Your task to perform on an android device: delete a single message in the gmail app Image 0: 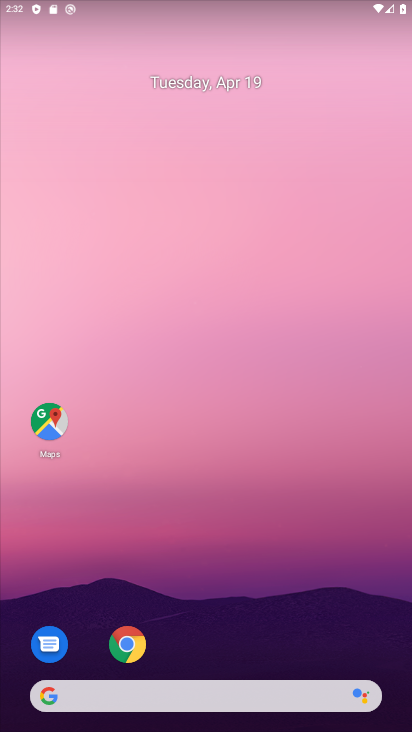
Step 0: drag from (266, 645) to (258, 103)
Your task to perform on an android device: delete a single message in the gmail app Image 1: 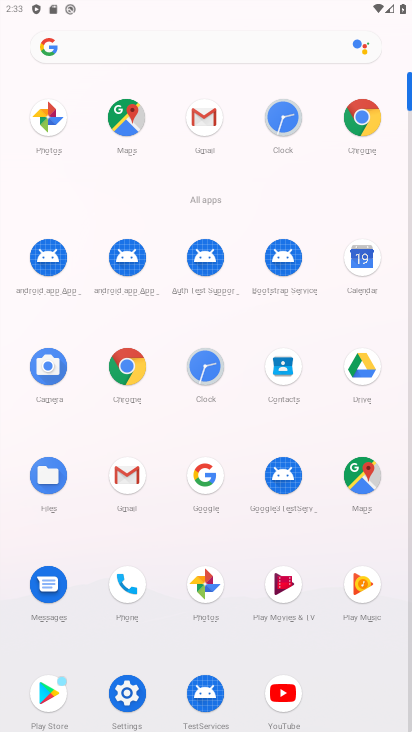
Step 1: click (121, 474)
Your task to perform on an android device: delete a single message in the gmail app Image 2: 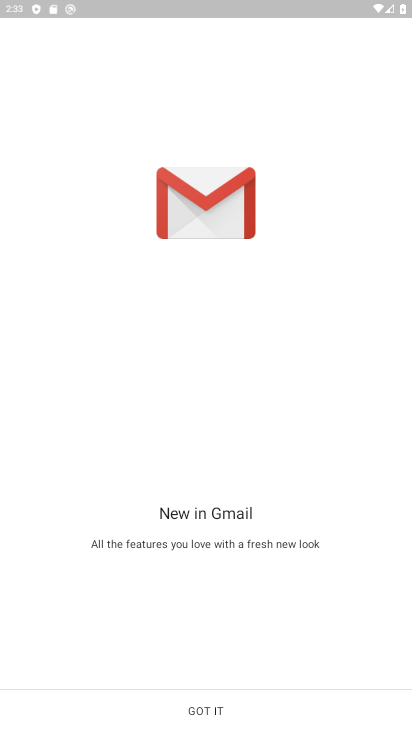
Step 2: click (285, 727)
Your task to perform on an android device: delete a single message in the gmail app Image 3: 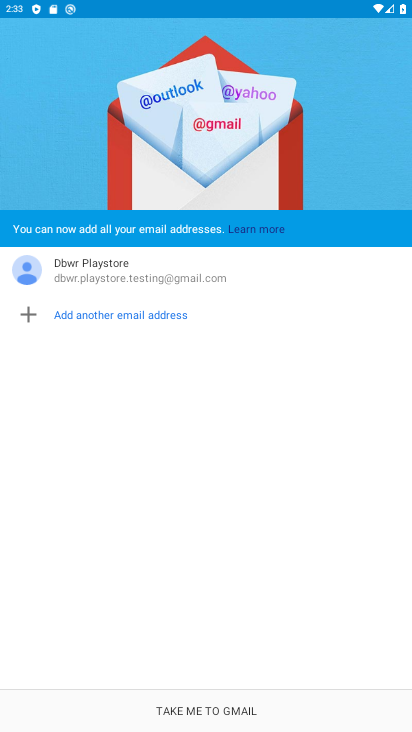
Step 3: click (284, 722)
Your task to perform on an android device: delete a single message in the gmail app Image 4: 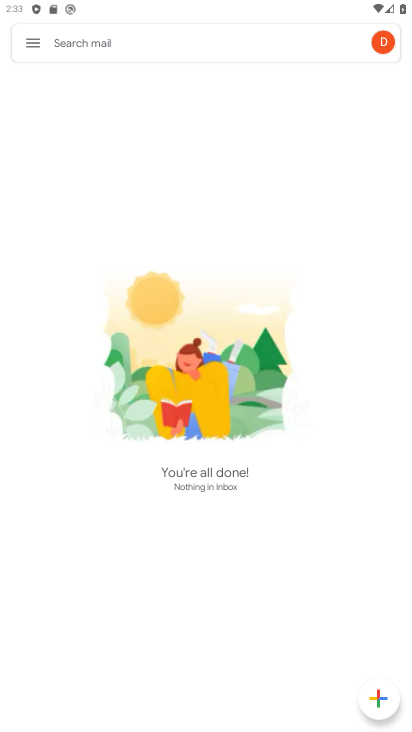
Step 4: click (31, 38)
Your task to perform on an android device: delete a single message in the gmail app Image 5: 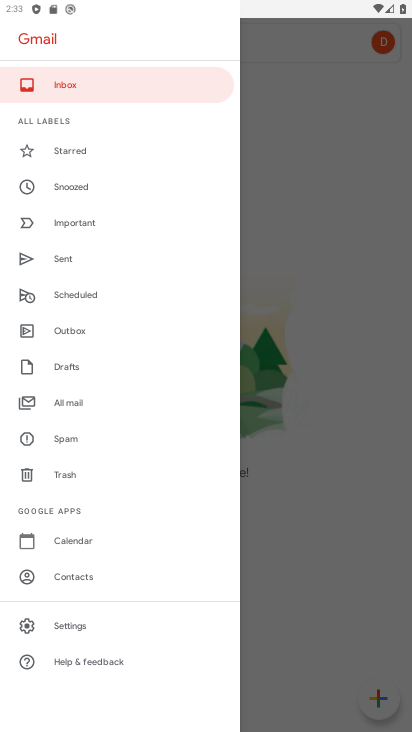
Step 5: click (62, 407)
Your task to perform on an android device: delete a single message in the gmail app Image 6: 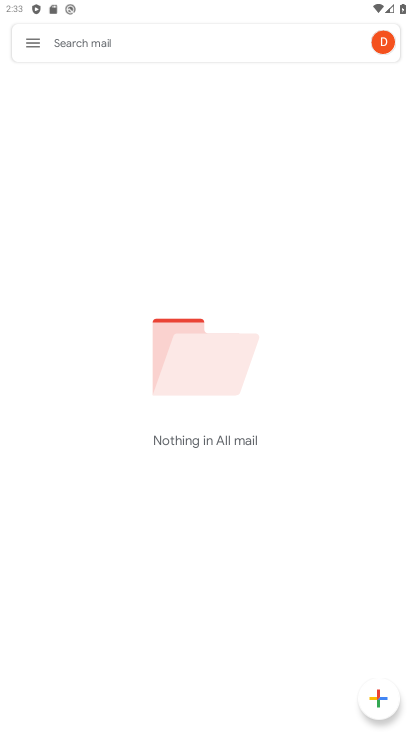
Step 6: task complete